Your task to perform on an android device: all mails in gmail Image 0: 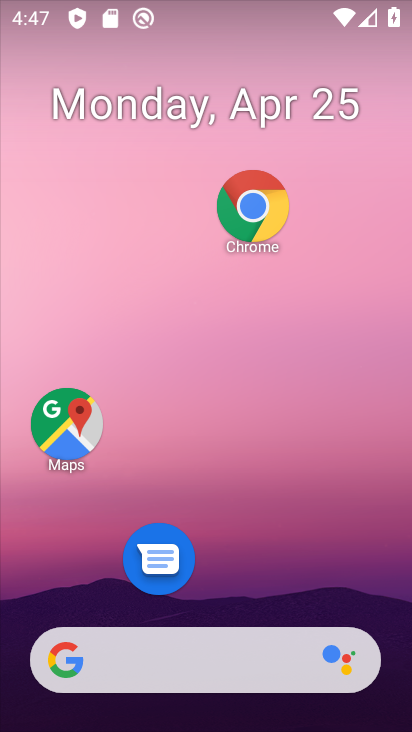
Step 0: drag from (259, 501) to (233, 56)
Your task to perform on an android device: all mails in gmail Image 1: 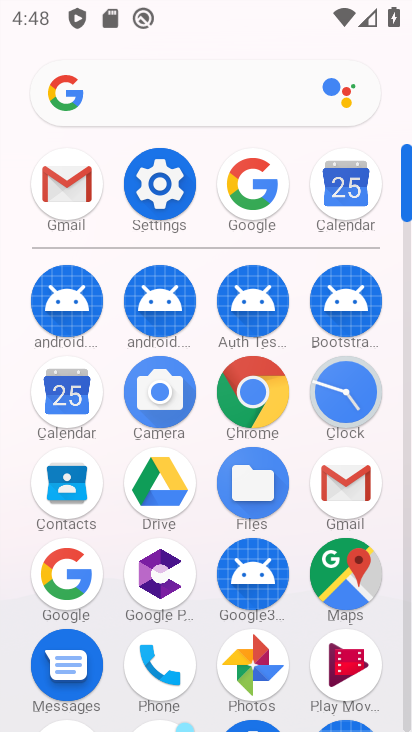
Step 1: click (78, 187)
Your task to perform on an android device: all mails in gmail Image 2: 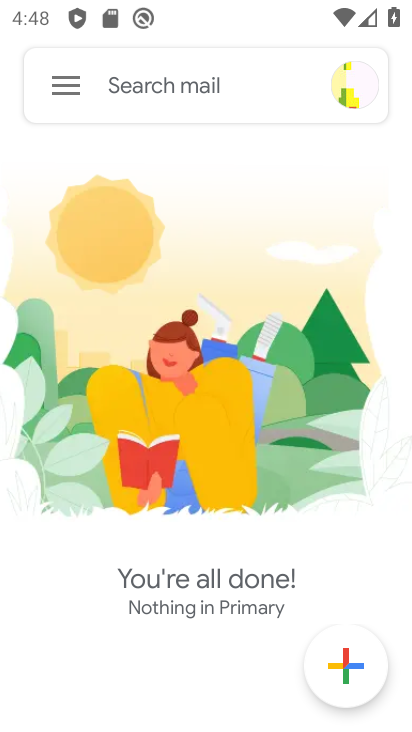
Step 2: click (72, 81)
Your task to perform on an android device: all mails in gmail Image 3: 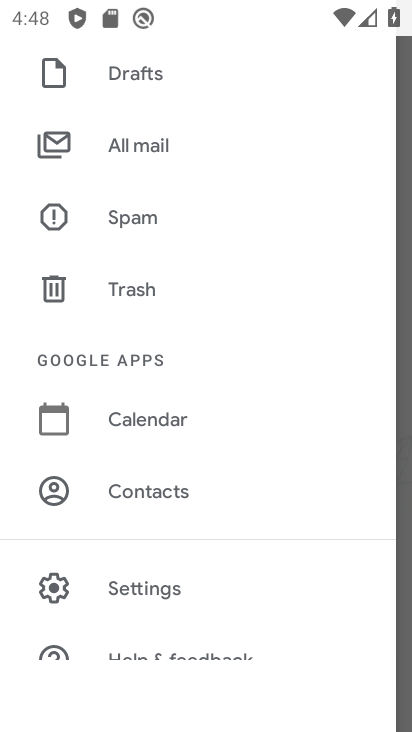
Step 3: click (133, 145)
Your task to perform on an android device: all mails in gmail Image 4: 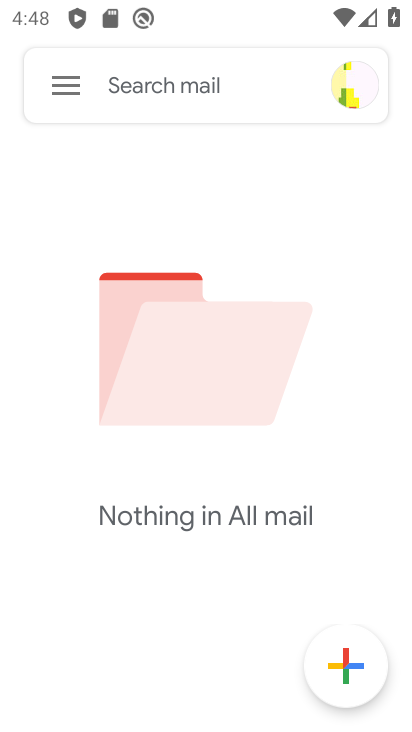
Step 4: task complete